Your task to perform on an android device: read, delete, or share a saved page in the chrome app Image 0: 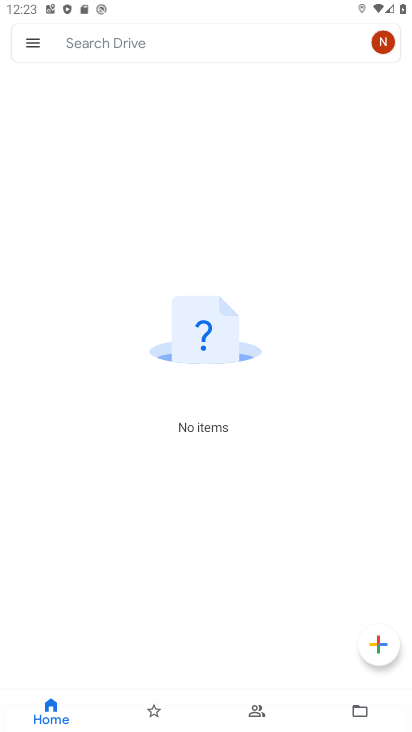
Step 0: press home button
Your task to perform on an android device: read, delete, or share a saved page in the chrome app Image 1: 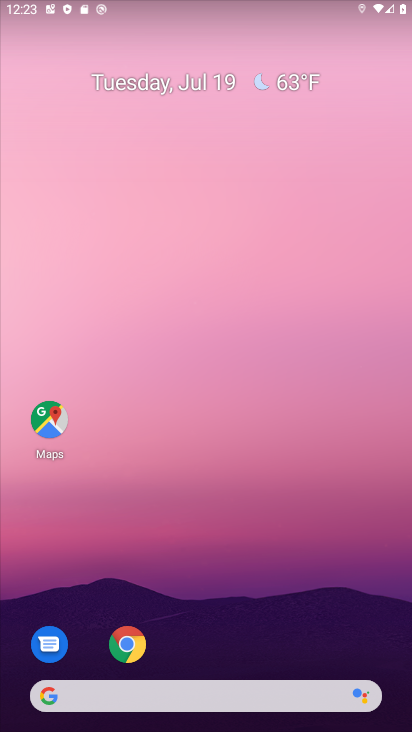
Step 1: drag from (219, 729) to (225, 393)
Your task to perform on an android device: read, delete, or share a saved page in the chrome app Image 2: 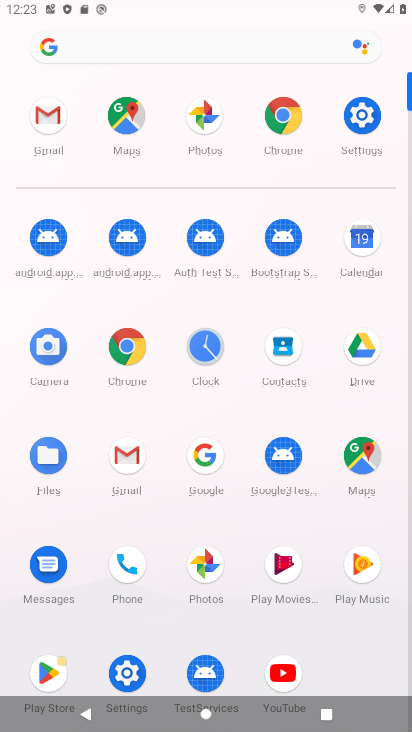
Step 2: click (130, 349)
Your task to perform on an android device: read, delete, or share a saved page in the chrome app Image 3: 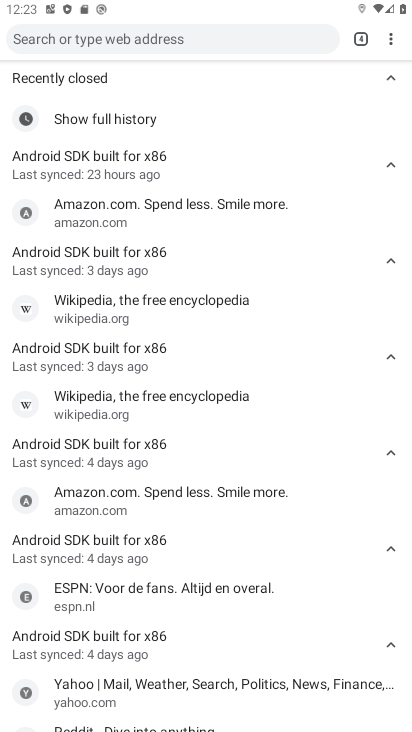
Step 3: click (391, 44)
Your task to perform on an android device: read, delete, or share a saved page in the chrome app Image 4: 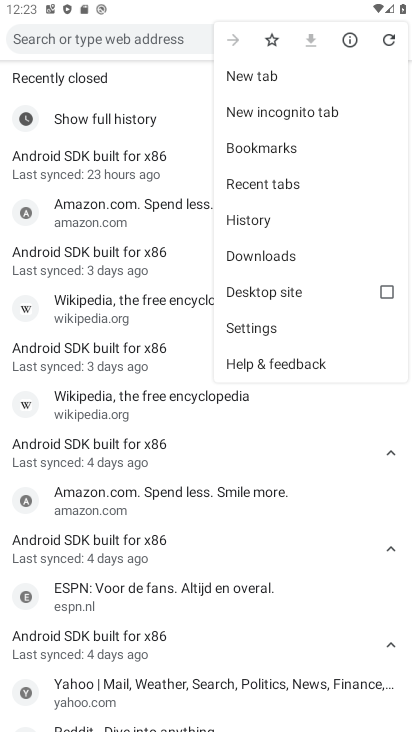
Step 4: click (262, 253)
Your task to perform on an android device: read, delete, or share a saved page in the chrome app Image 5: 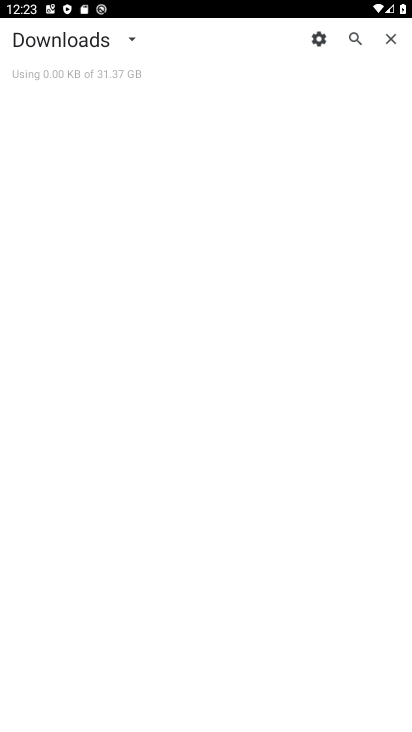
Step 5: task complete